Your task to perform on an android device: Open privacy settings Image 0: 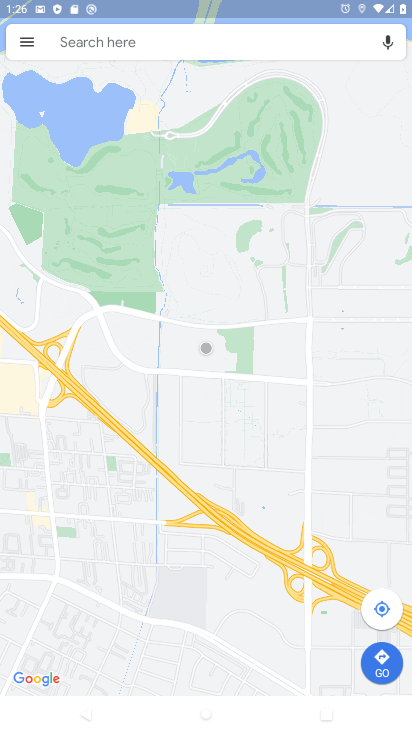
Step 0: press home button
Your task to perform on an android device: Open privacy settings Image 1: 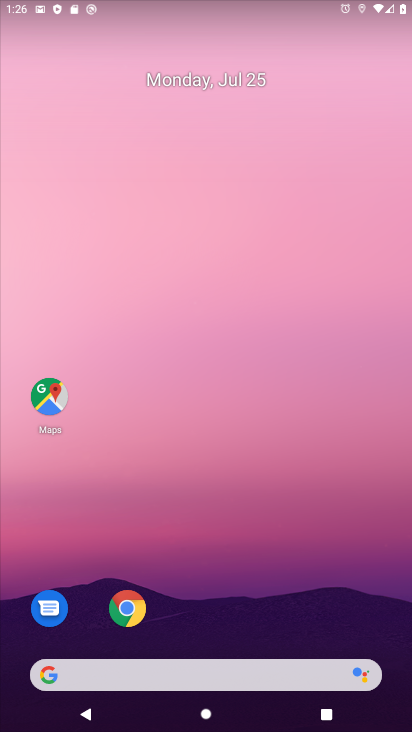
Step 1: drag from (205, 181) to (188, 48)
Your task to perform on an android device: Open privacy settings Image 2: 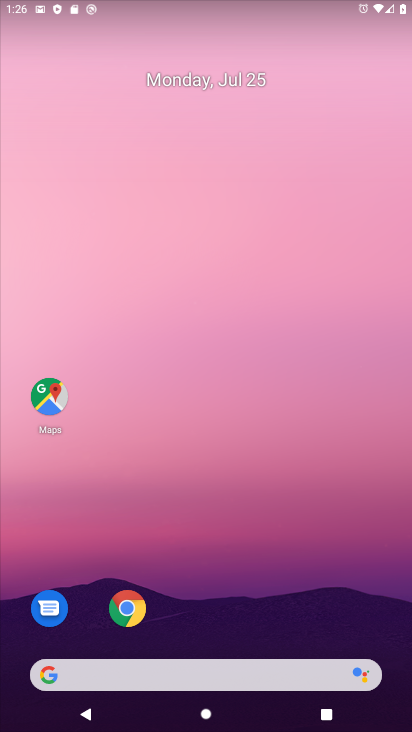
Step 2: click (252, 181)
Your task to perform on an android device: Open privacy settings Image 3: 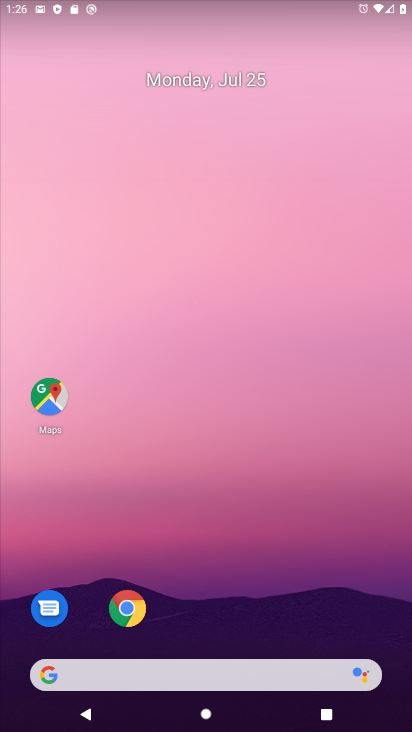
Step 3: drag from (230, 607) to (227, 69)
Your task to perform on an android device: Open privacy settings Image 4: 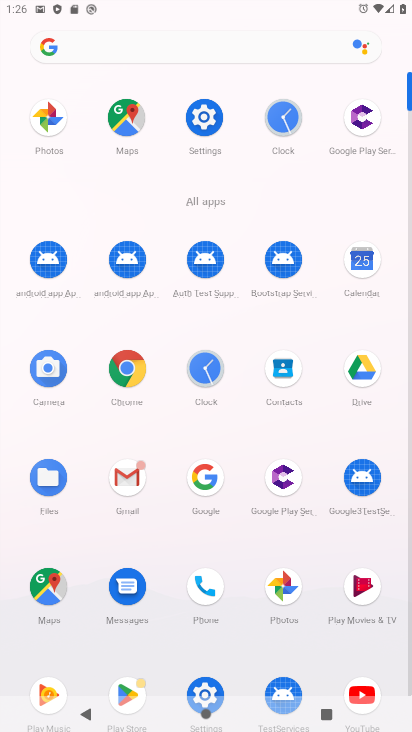
Step 4: click (201, 128)
Your task to perform on an android device: Open privacy settings Image 5: 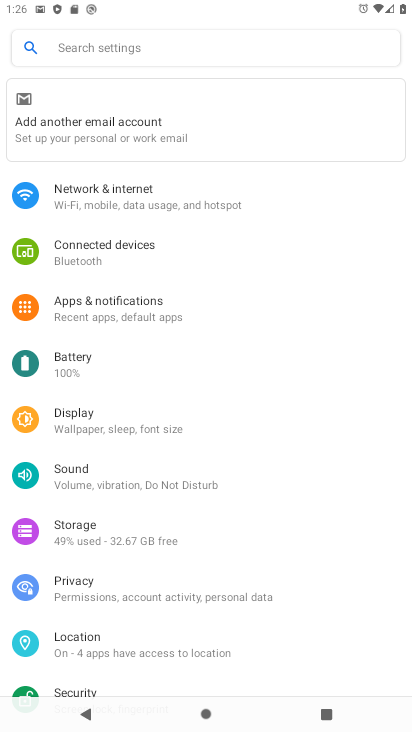
Step 5: click (127, 598)
Your task to perform on an android device: Open privacy settings Image 6: 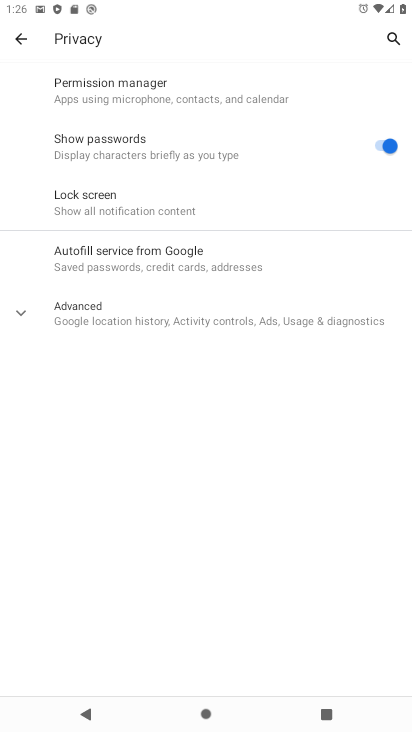
Step 6: task complete